Your task to perform on an android device: set the timer Image 0: 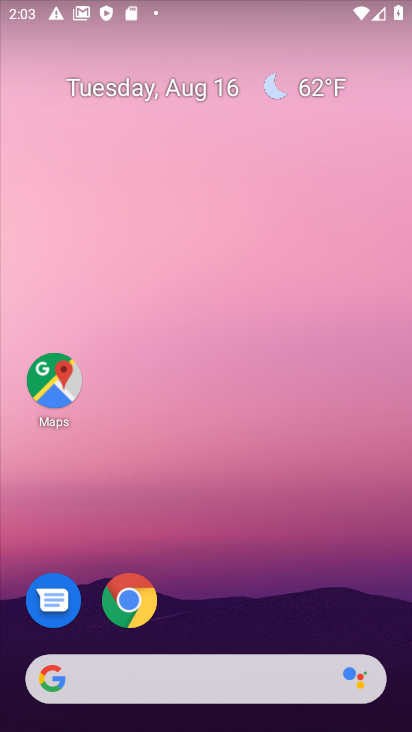
Step 0: drag from (202, 595) to (209, 14)
Your task to perform on an android device: set the timer Image 1: 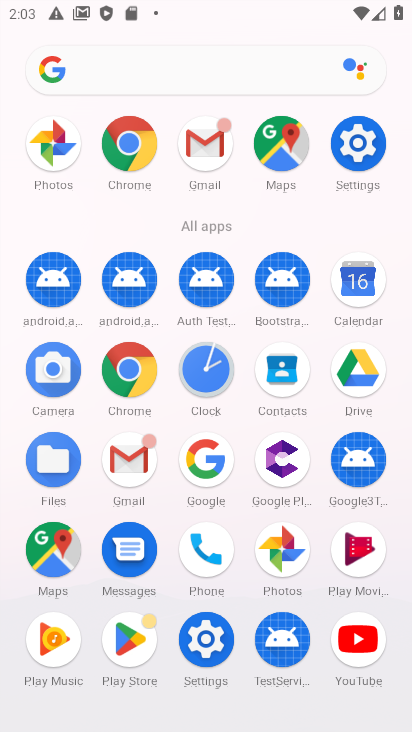
Step 1: click (211, 379)
Your task to perform on an android device: set the timer Image 2: 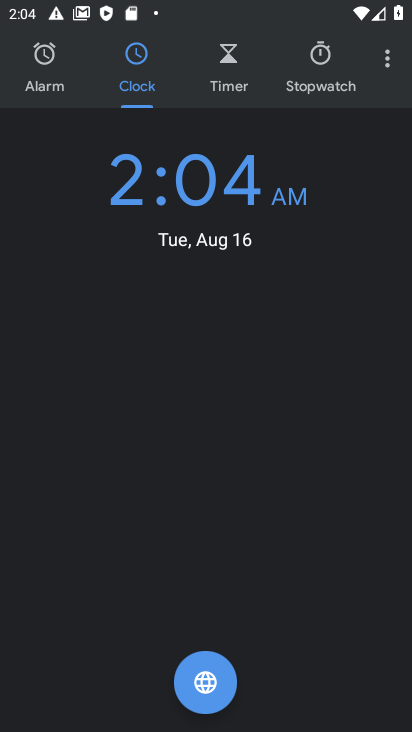
Step 2: click (241, 81)
Your task to perform on an android device: set the timer Image 3: 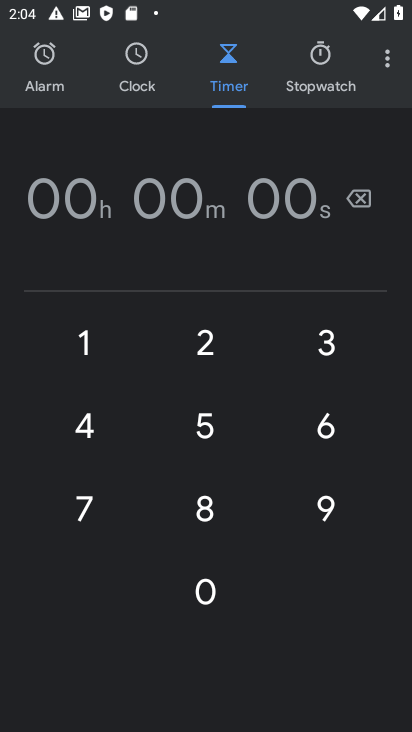
Step 3: click (185, 425)
Your task to perform on an android device: set the timer Image 4: 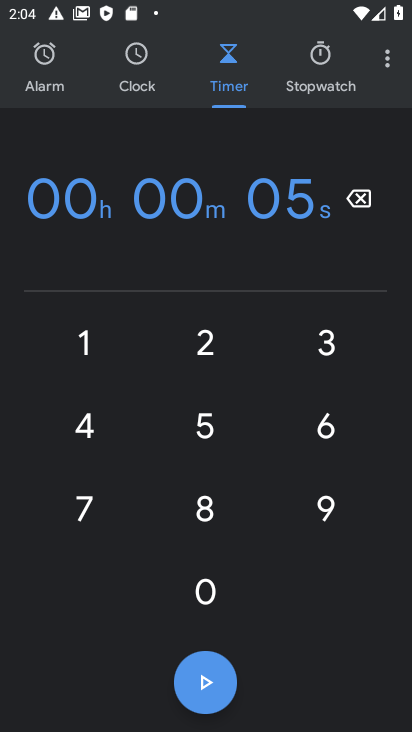
Step 4: click (99, 429)
Your task to perform on an android device: set the timer Image 5: 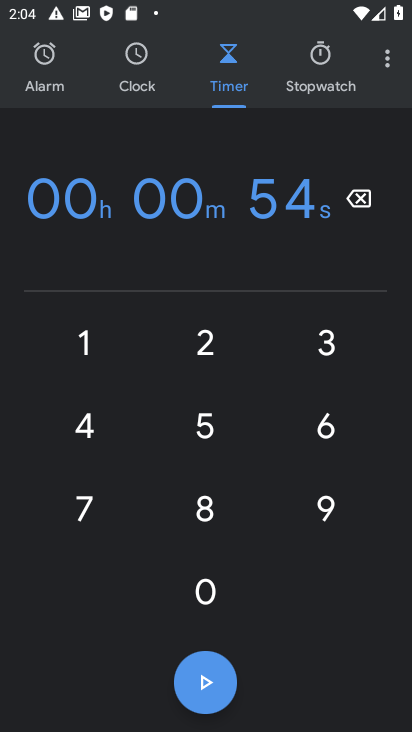
Step 5: click (90, 496)
Your task to perform on an android device: set the timer Image 6: 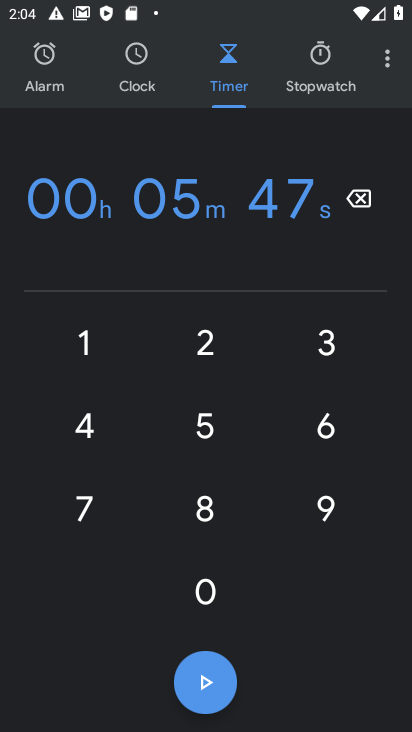
Step 6: click (193, 506)
Your task to perform on an android device: set the timer Image 7: 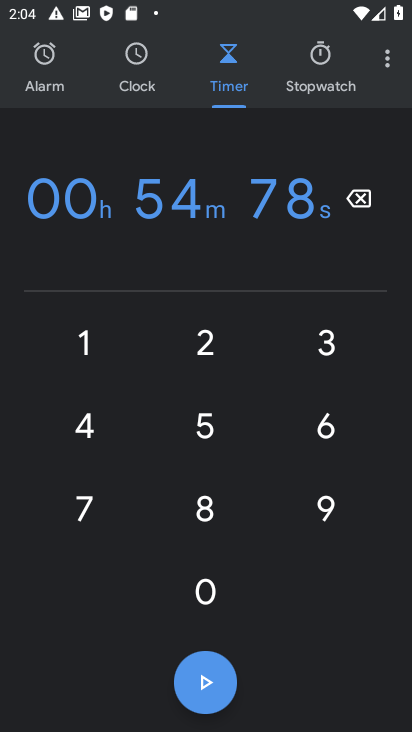
Step 7: click (214, 687)
Your task to perform on an android device: set the timer Image 8: 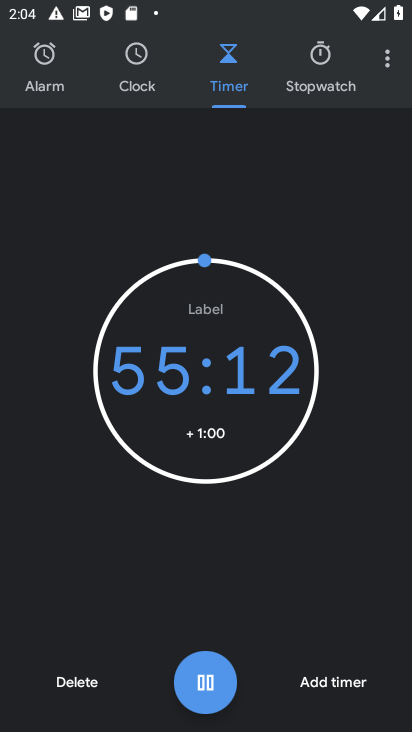
Step 8: task complete